Your task to perform on an android device: open device folders in google photos Image 0: 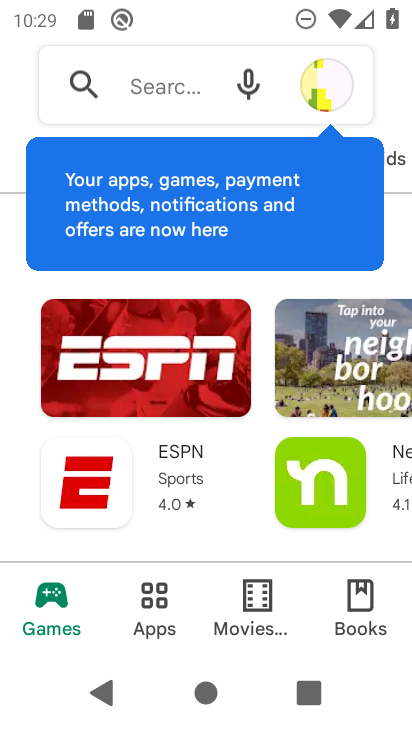
Step 0: press back button
Your task to perform on an android device: open device folders in google photos Image 1: 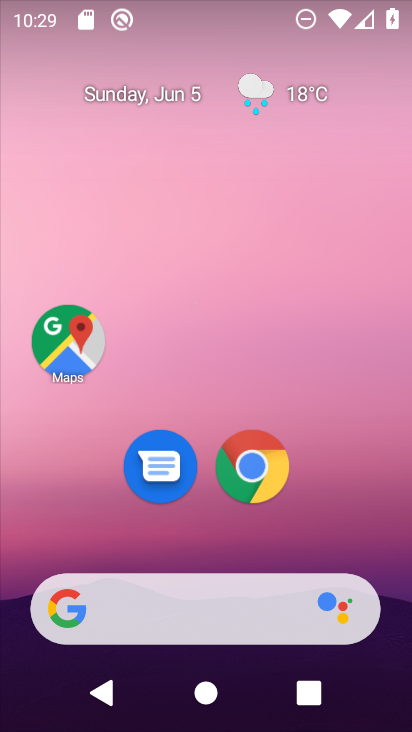
Step 1: drag from (307, 470) to (225, 4)
Your task to perform on an android device: open device folders in google photos Image 2: 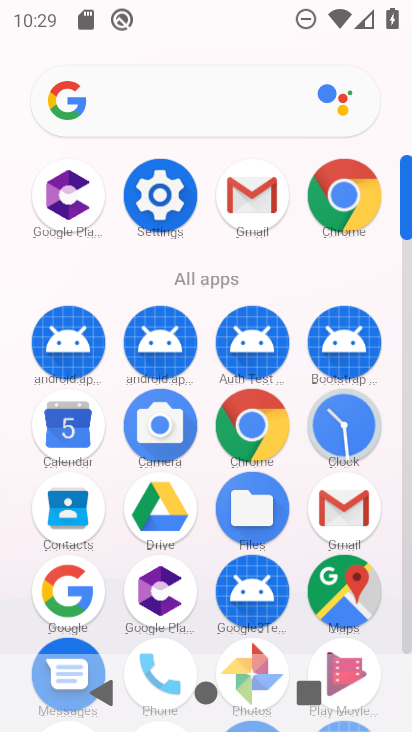
Step 2: drag from (6, 612) to (16, 220)
Your task to perform on an android device: open device folders in google photos Image 3: 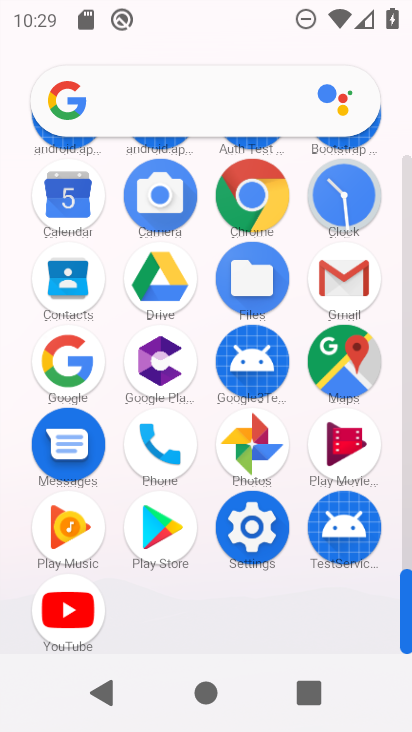
Step 3: click (252, 445)
Your task to perform on an android device: open device folders in google photos Image 4: 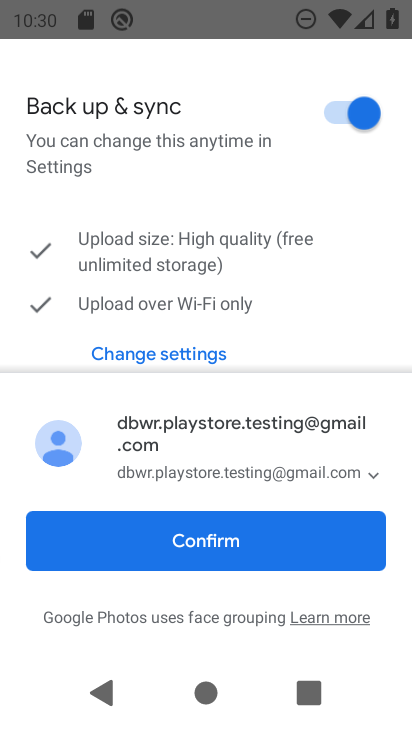
Step 4: click (231, 538)
Your task to perform on an android device: open device folders in google photos Image 5: 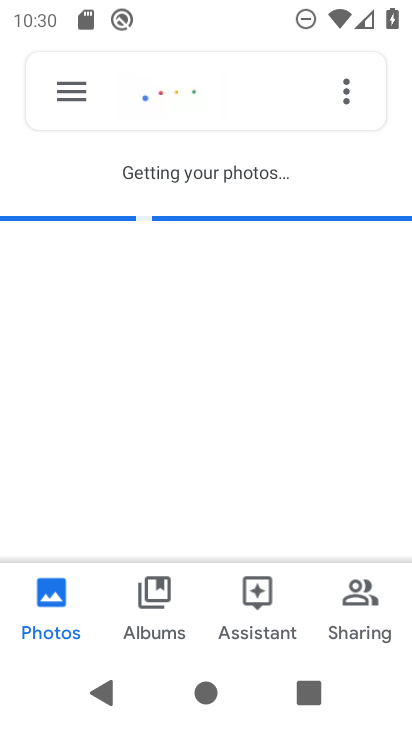
Step 5: click (75, 92)
Your task to perform on an android device: open device folders in google photos Image 6: 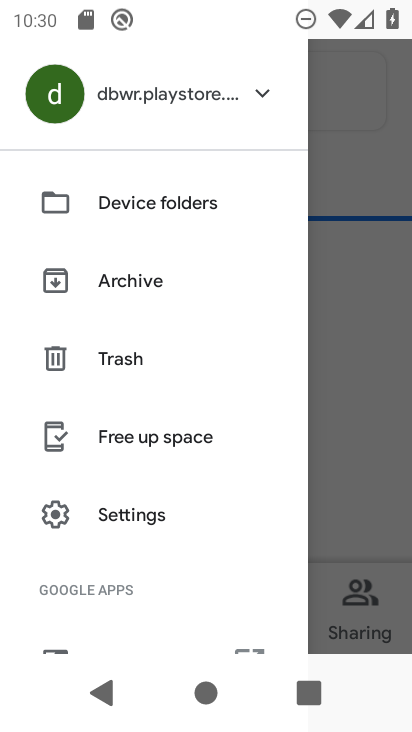
Step 6: click (142, 185)
Your task to perform on an android device: open device folders in google photos Image 7: 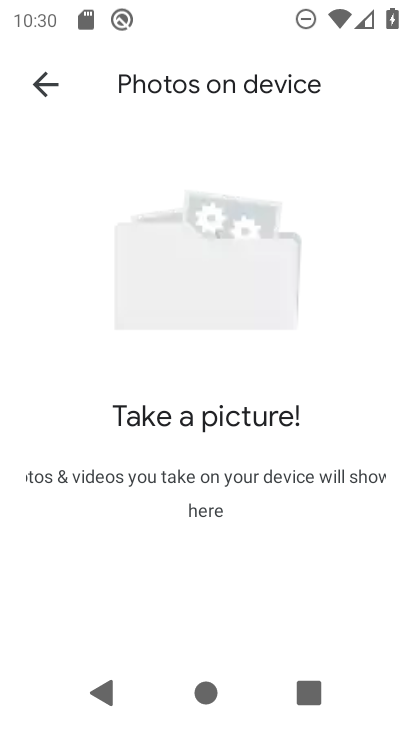
Step 7: task complete